Your task to perform on an android device: Open calendar and show me the third week of next month Image 0: 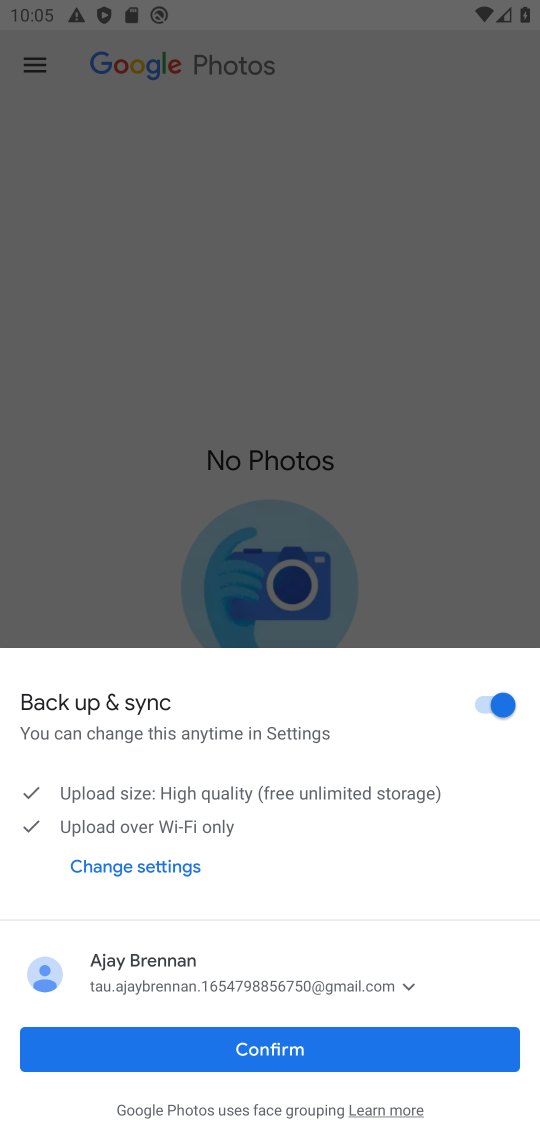
Step 0: task complete